Your task to perform on an android device: Open Youtube and go to "Your channel" Image 0: 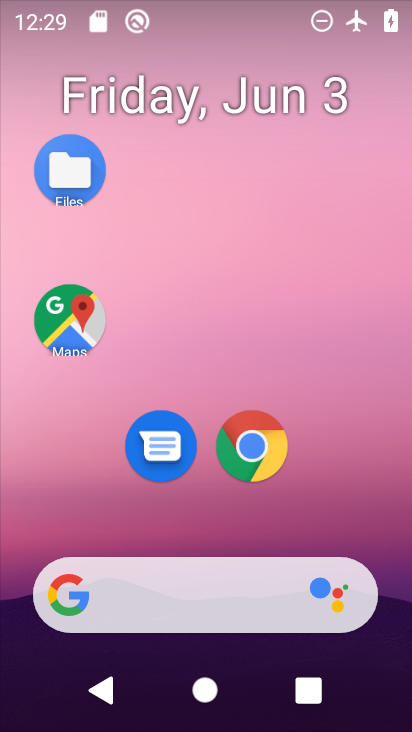
Step 0: drag from (257, 692) to (214, 117)
Your task to perform on an android device: Open Youtube and go to "Your channel" Image 1: 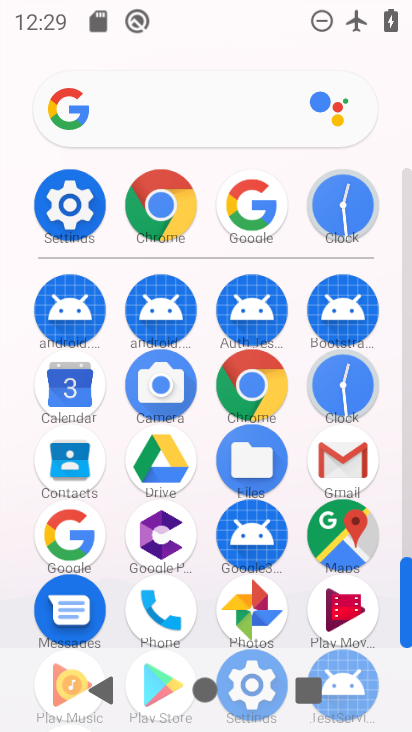
Step 1: drag from (297, 427) to (275, 278)
Your task to perform on an android device: Open Youtube and go to "Your channel" Image 2: 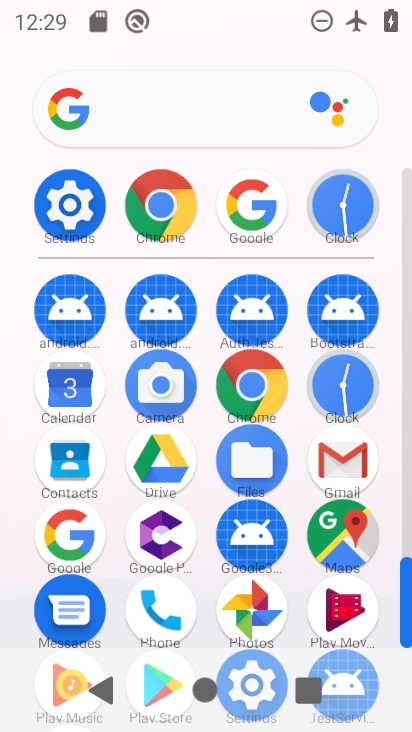
Step 2: drag from (303, 478) to (274, 166)
Your task to perform on an android device: Open Youtube and go to "Your channel" Image 3: 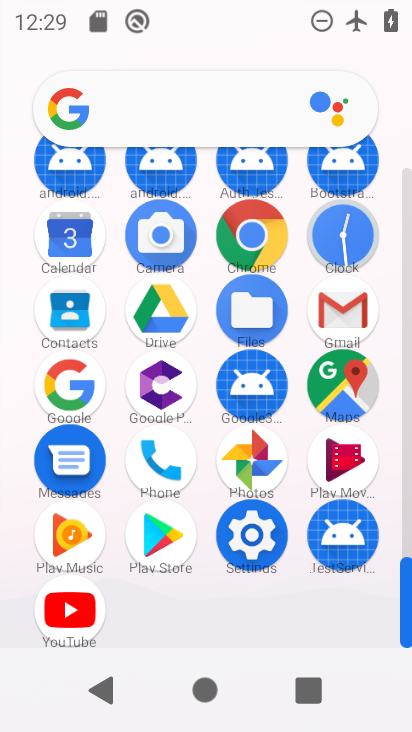
Step 3: click (60, 615)
Your task to perform on an android device: Open Youtube and go to "Your channel" Image 4: 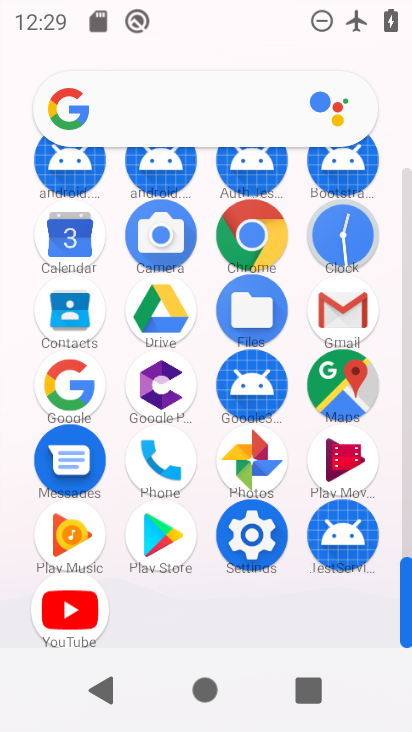
Step 4: click (59, 598)
Your task to perform on an android device: Open Youtube and go to "Your channel" Image 5: 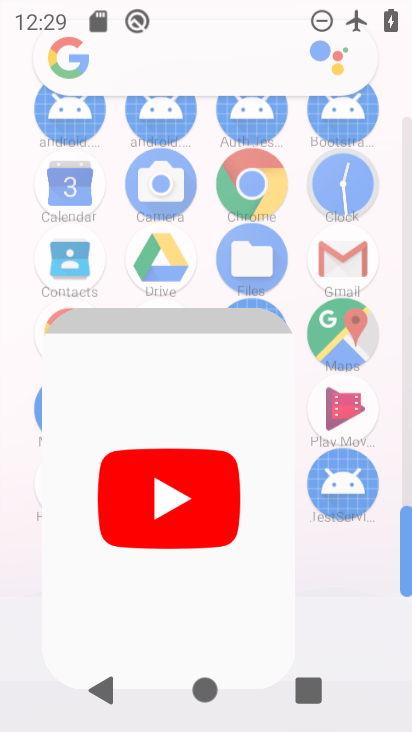
Step 5: click (58, 605)
Your task to perform on an android device: Open Youtube and go to "Your channel" Image 6: 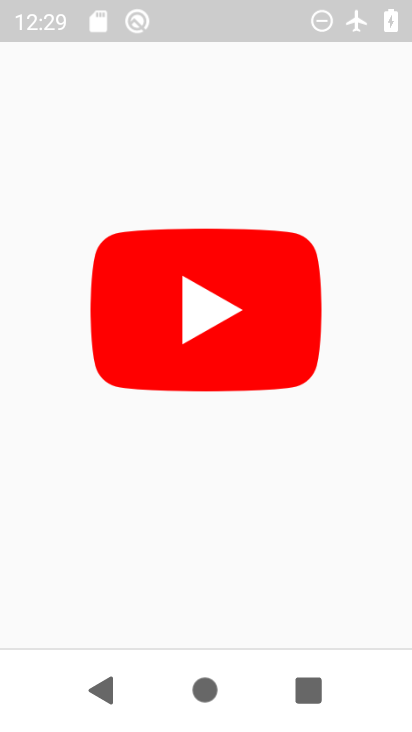
Step 6: click (59, 608)
Your task to perform on an android device: Open Youtube and go to "Your channel" Image 7: 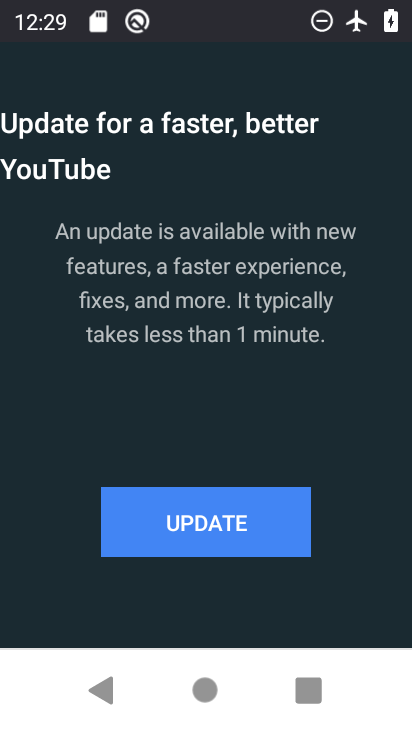
Step 7: click (210, 519)
Your task to perform on an android device: Open Youtube and go to "Your channel" Image 8: 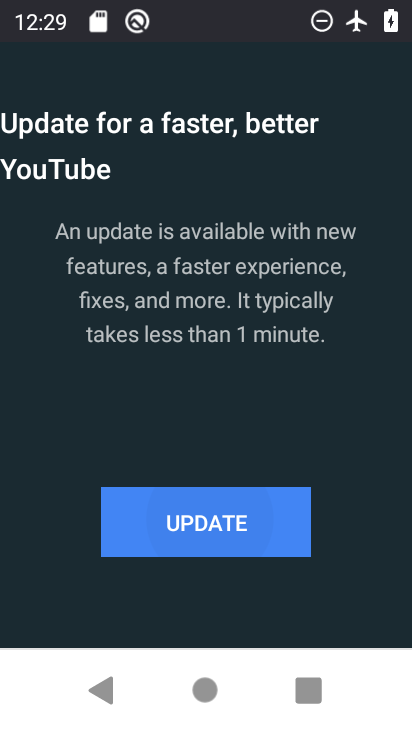
Step 8: click (210, 519)
Your task to perform on an android device: Open Youtube and go to "Your channel" Image 9: 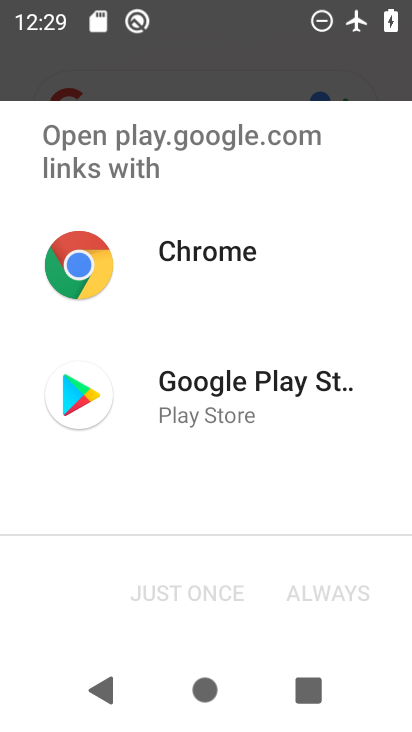
Step 9: click (206, 415)
Your task to perform on an android device: Open Youtube and go to "Your channel" Image 10: 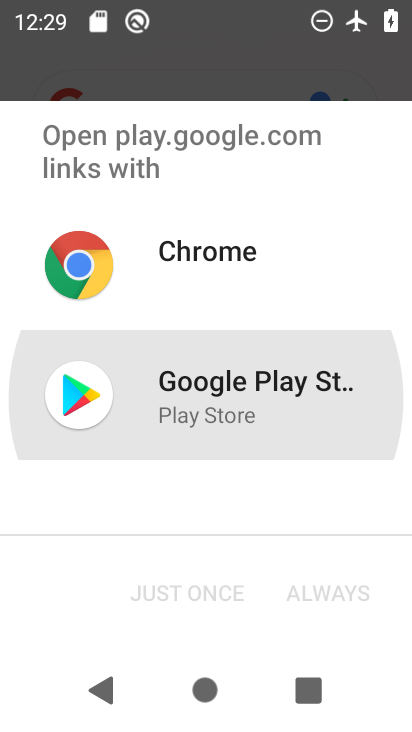
Step 10: click (206, 414)
Your task to perform on an android device: Open Youtube and go to "Your channel" Image 11: 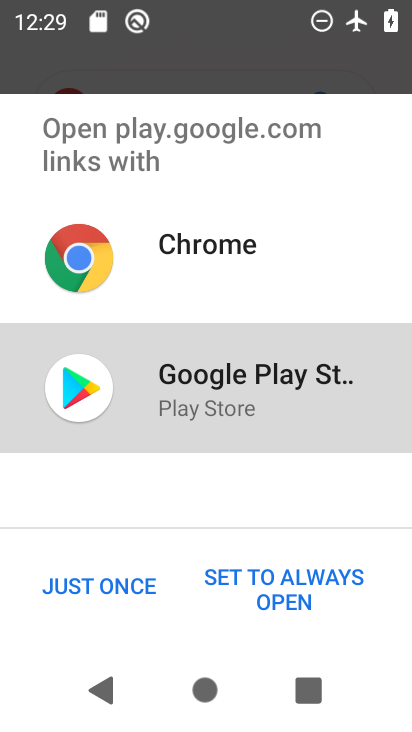
Step 11: click (206, 414)
Your task to perform on an android device: Open Youtube and go to "Your channel" Image 12: 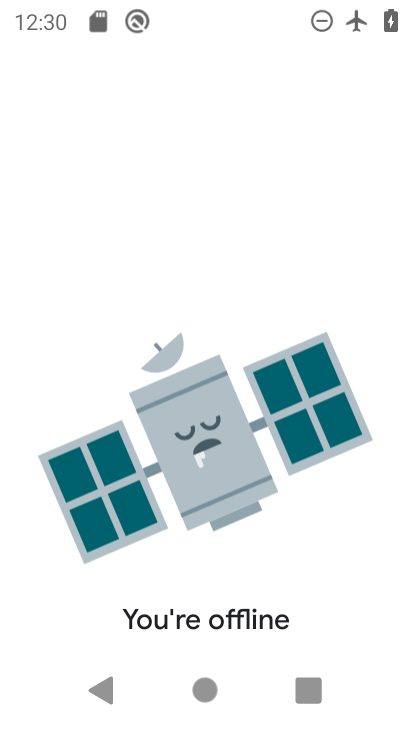
Step 12: task complete